Your task to perform on an android device: Is it going to rain today? Image 0: 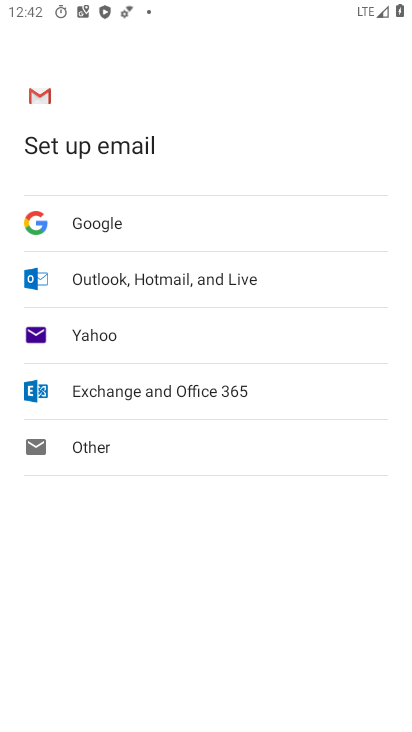
Step 0: press home button
Your task to perform on an android device: Is it going to rain today? Image 1: 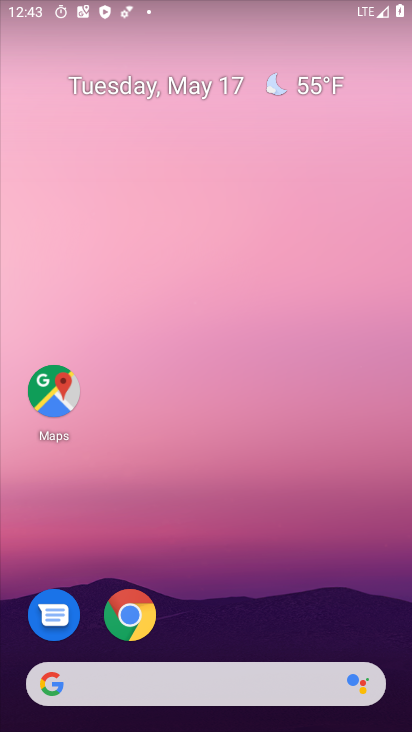
Step 1: click (121, 608)
Your task to perform on an android device: Is it going to rain today? Image 2: 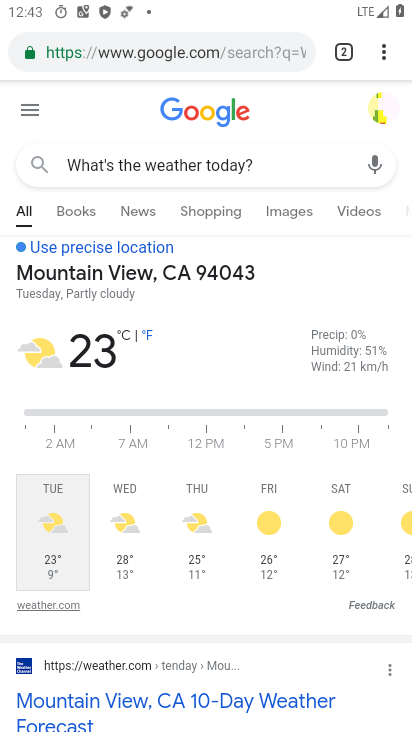
Step 2: drag from (383, 46) to (210, 573)
Your task to perform on an android device: Is it going to rain today? Image 3: 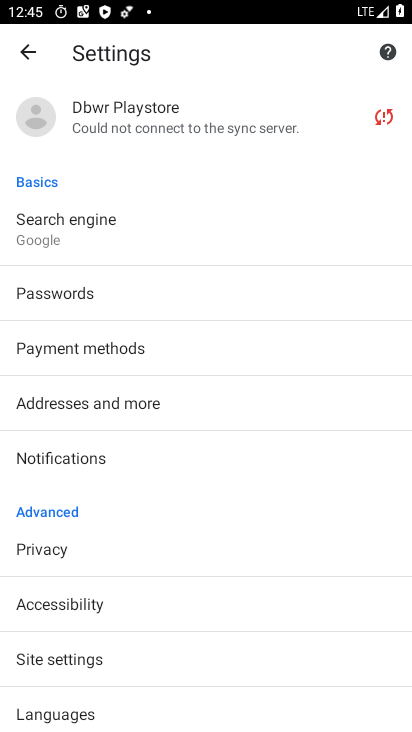
Step 3: press back button
Your task to perform on an android device: Is it going to rain today? Image 4: 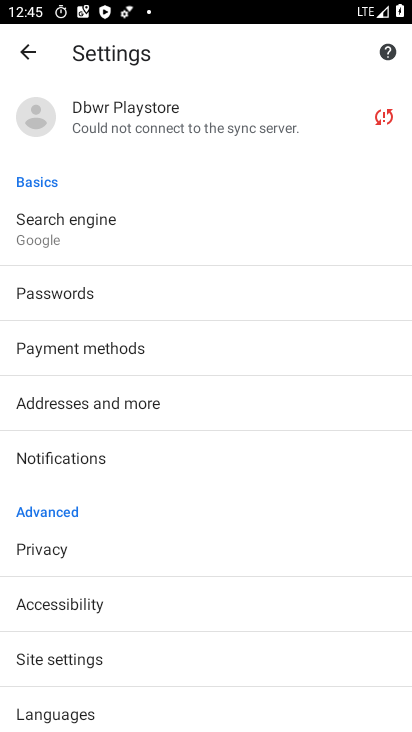
Step 4: press back button
Your task to perform on an android device: Is it going to rain today? Image 5: 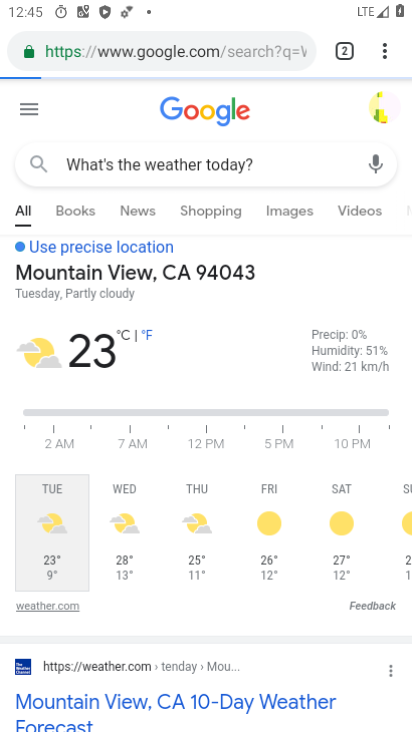
Step 5: press back button
Your task to perform on an android device: Is it going to rain today? Image 6: 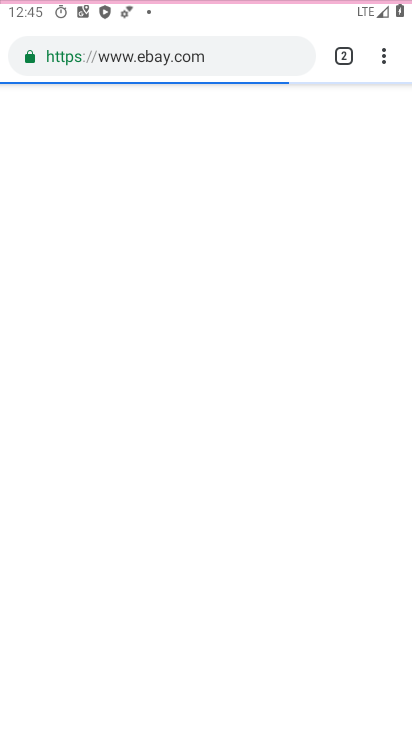
Step 6: press back button
Your task to perform on an android device: Is it going to rain today? Image 7: 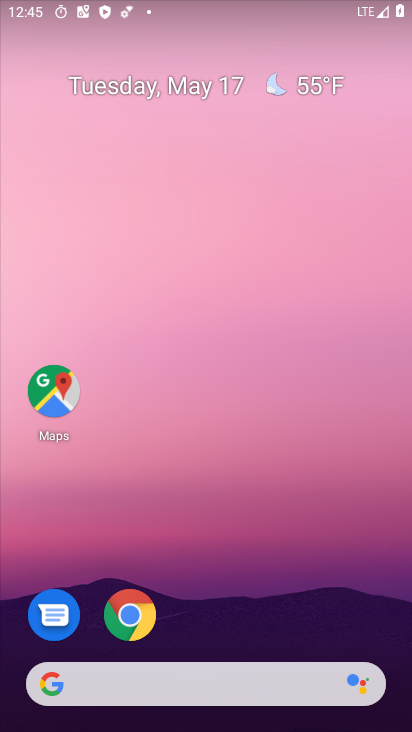
Step 7: click (145, 606)
Your task to perform on an android device: Is it going to rain today? Image 8: 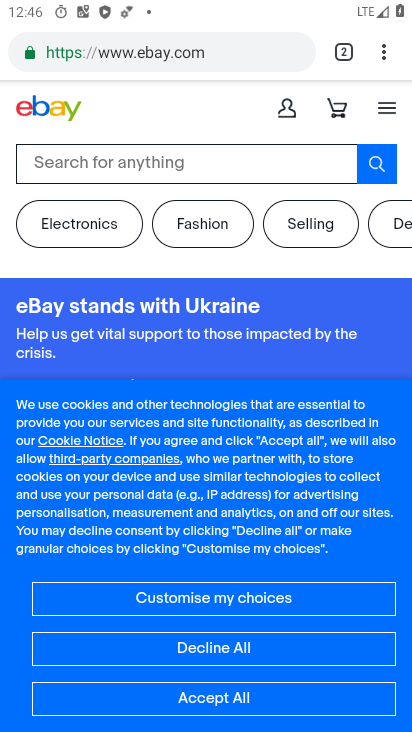
Step 8: click (125, 54)
Your task to perform on an android device: Is it going to rain today? Image 9: 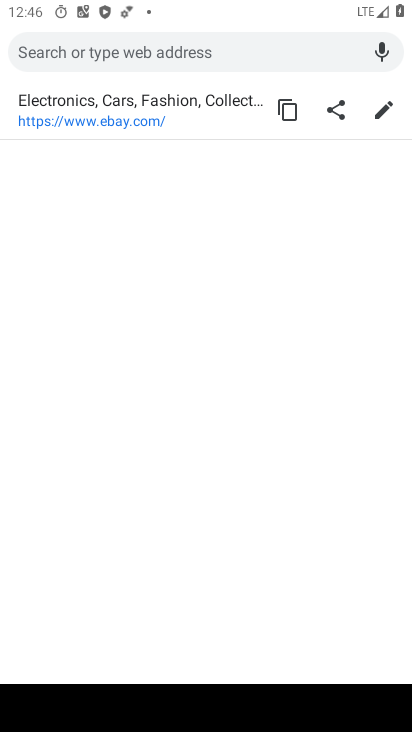
Step 9: type "Is it going to rain today?"
Your task to perform on an android device: Is it going to rain today? Image 10: 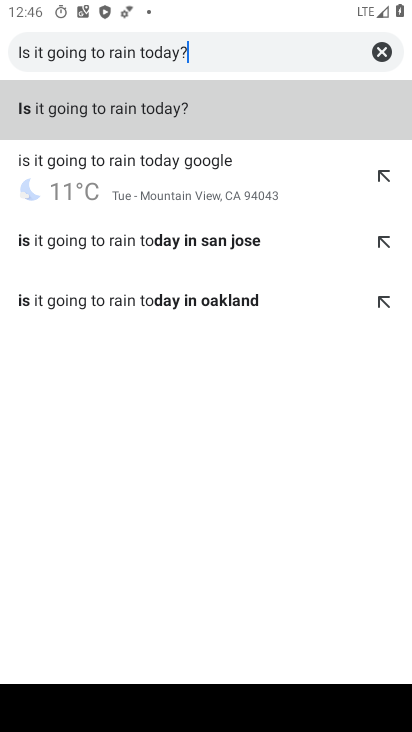
Step 10: click (222, 92)
Your task to perform on an android device: Is it going to rain today? Image 11: 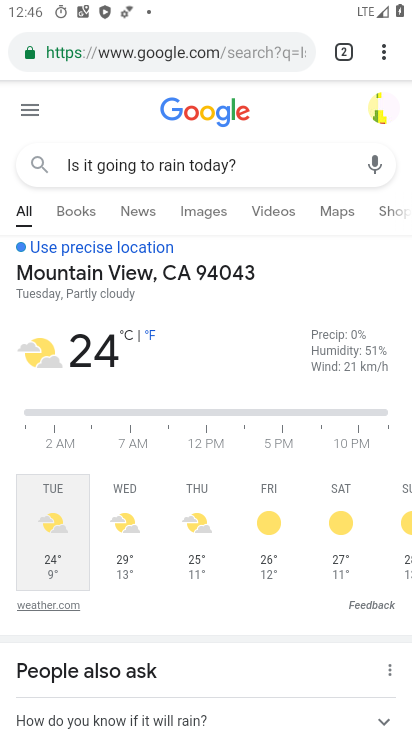
Step 11: task complete